Your task to perform on an android device: turn smart compose on in the gmail app Image 0: 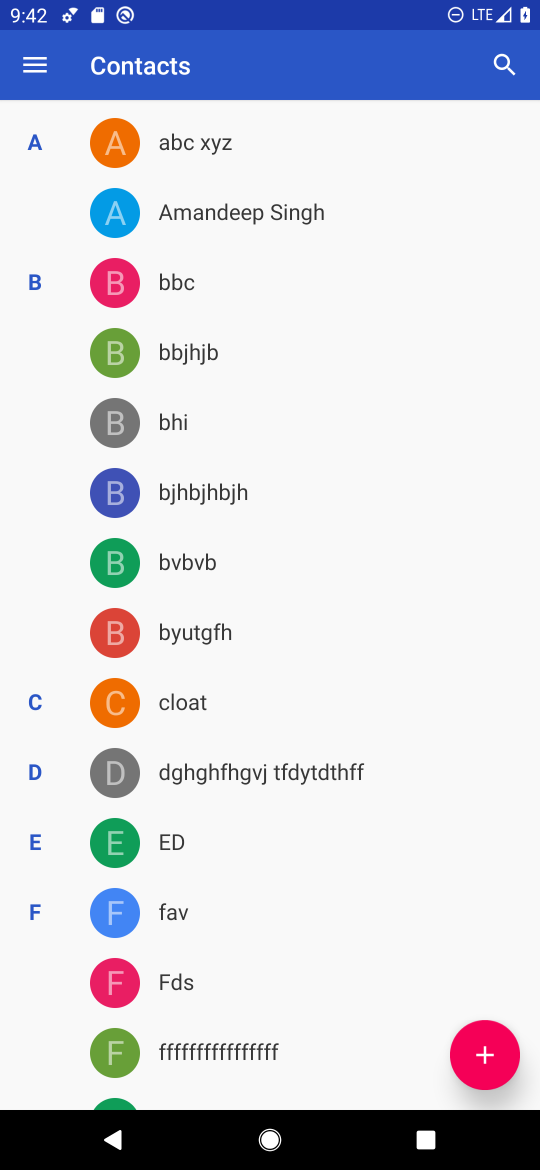
Step 0: press home button
Your task to perform on an android device: turn smart compose on in the gmail app Image 1: 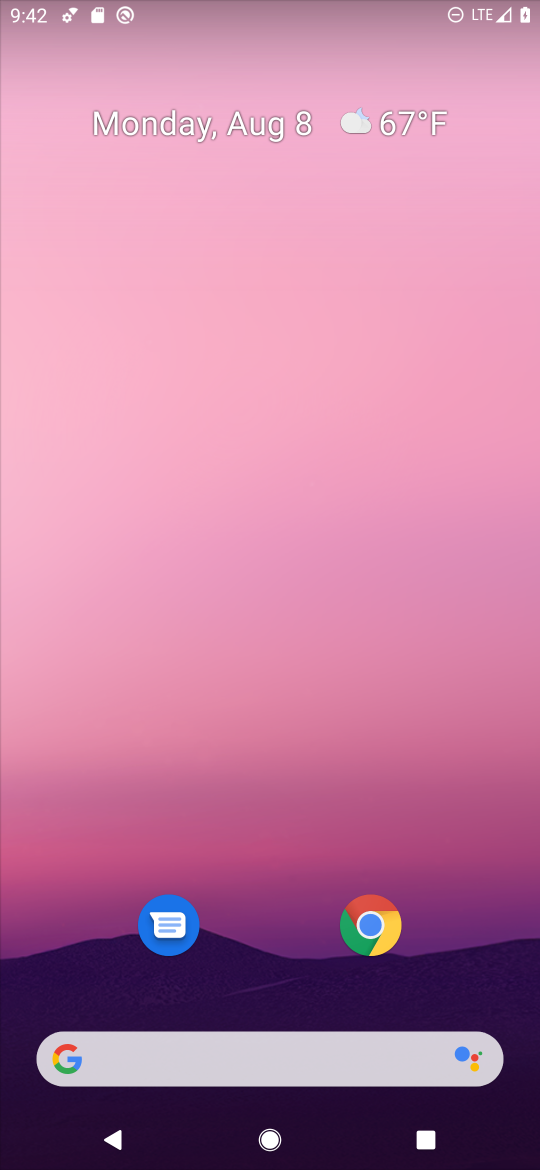
Step 1: drag from (256, 909) to (381, 95)
Your task to perform on an android device: turn smart compose on in the gmail app Image 2: 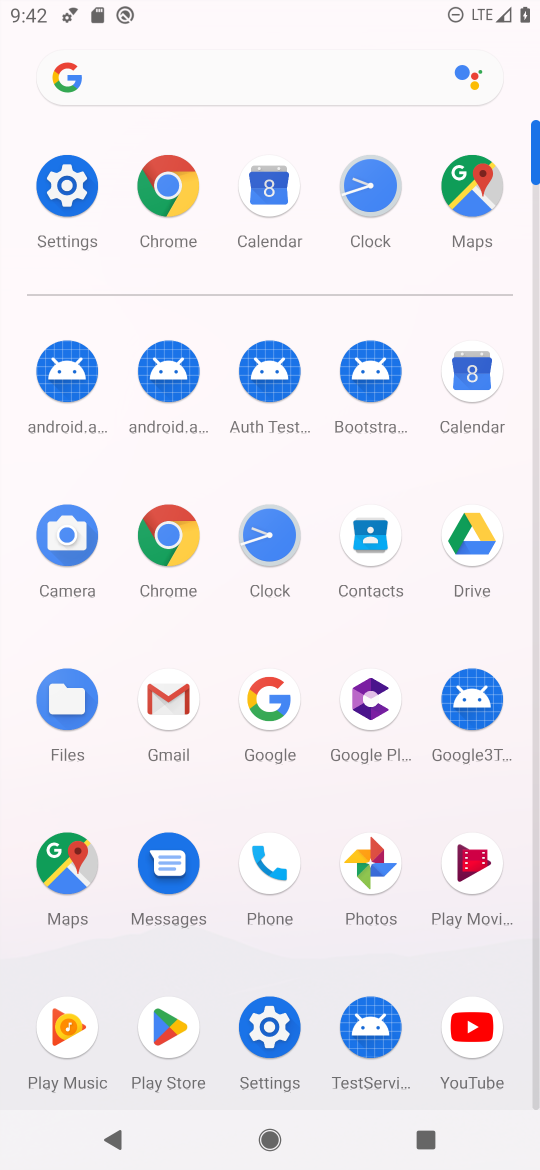
Step 2: click (180, 689)
Your task to perform on an android device: turn smart compose on in the gmail app Image 3: 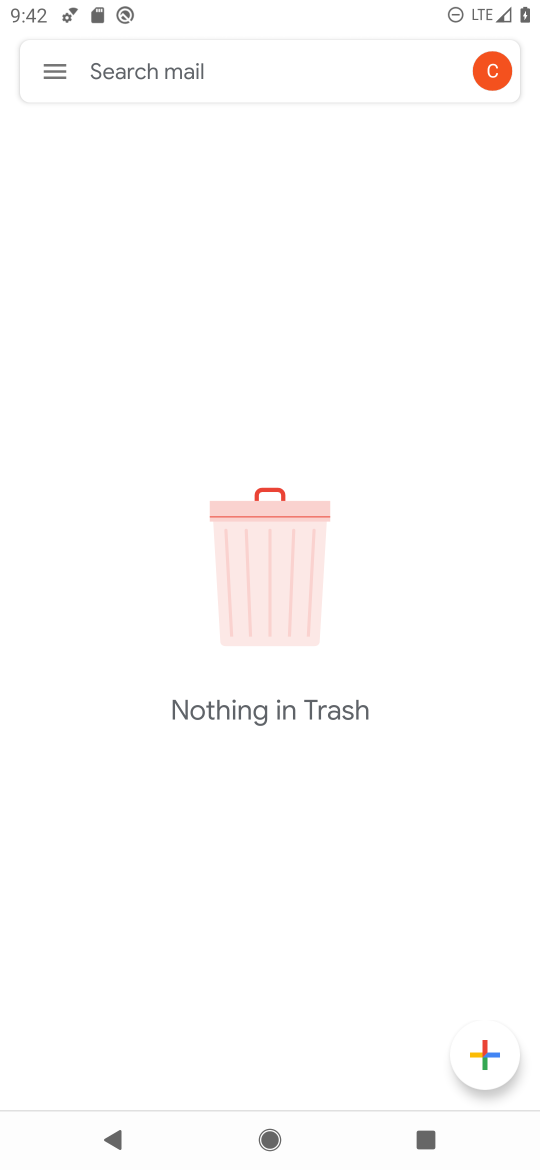
Step 3: click (51, 55)
Your task to perform on an android device: turn smart compose on in the gmail app Image 4: 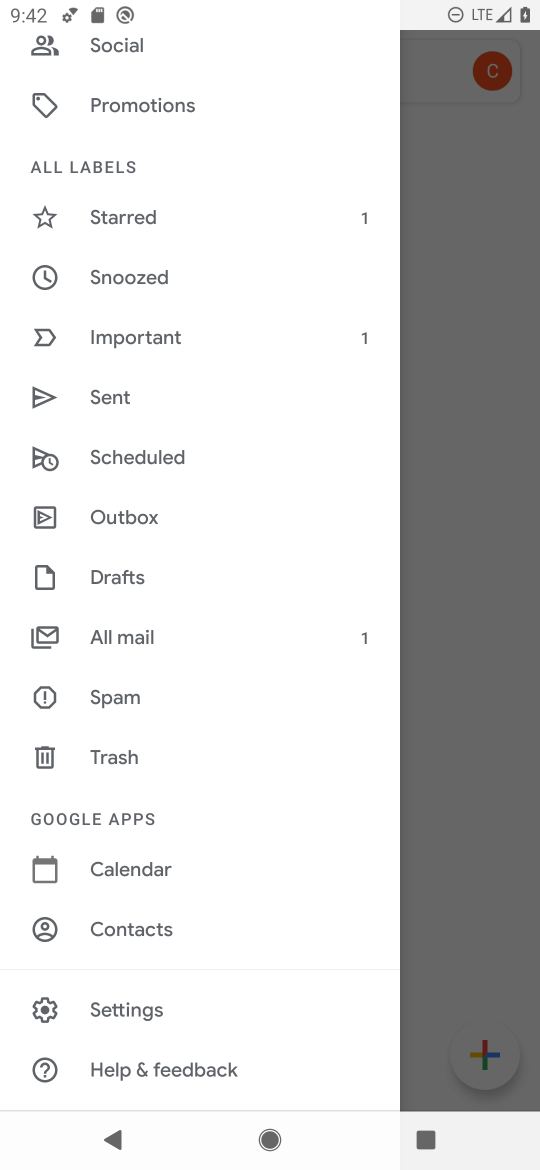
Step 4: click (133, 1005)
Your task to perform on an android device: turn smart compose on in the gmail app Image 5: 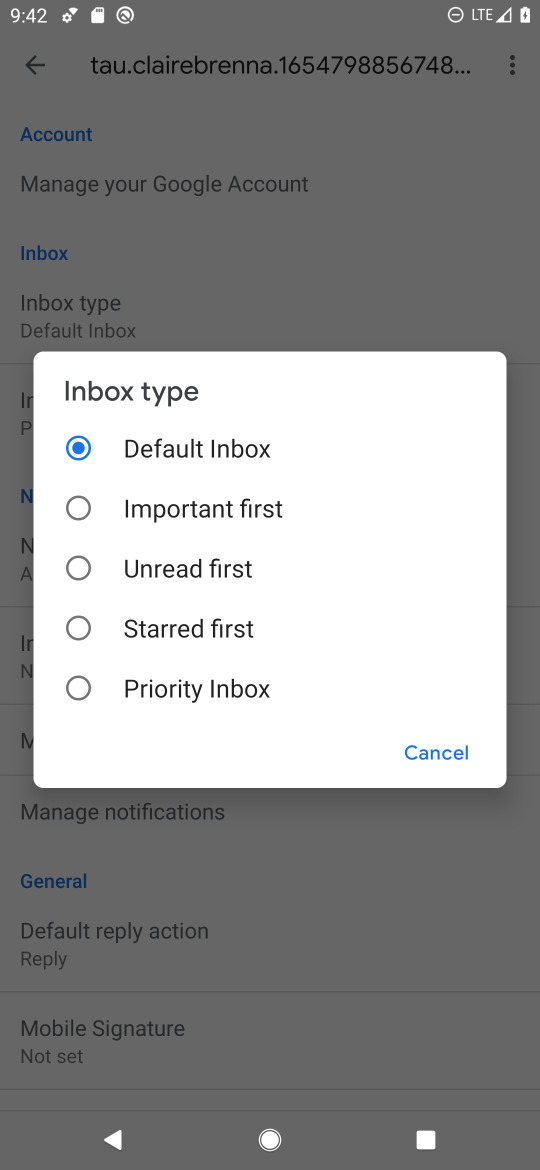
Step 5: click (428, 728)
Your task to perform on an android device: turn smart compose on in the gmail app Image 6: 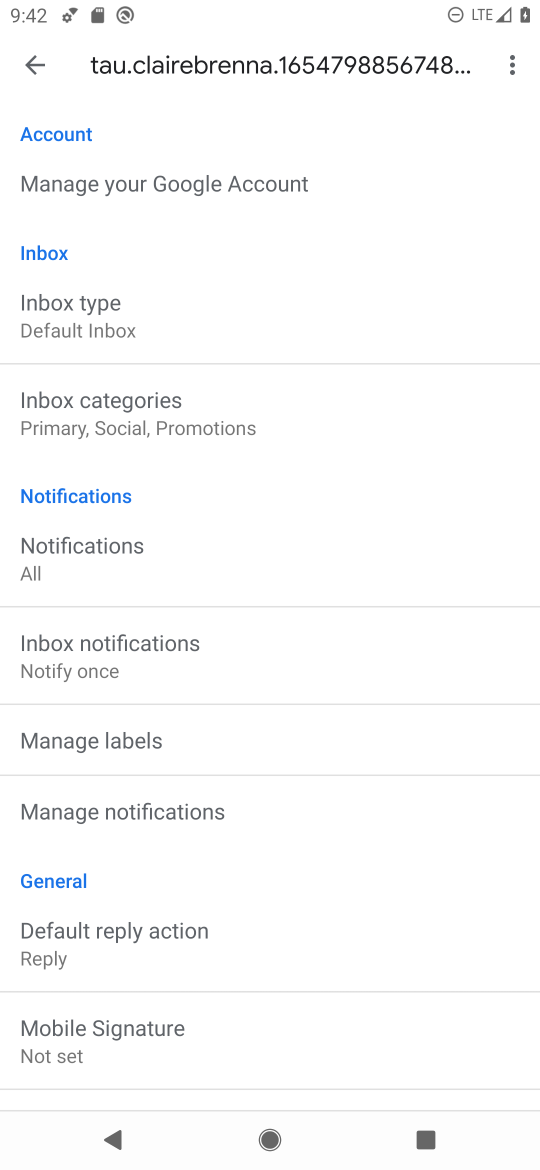
Step 6: task complete